Your task to perform on an android device: turn vacation reply on in the gmail app Image 0: 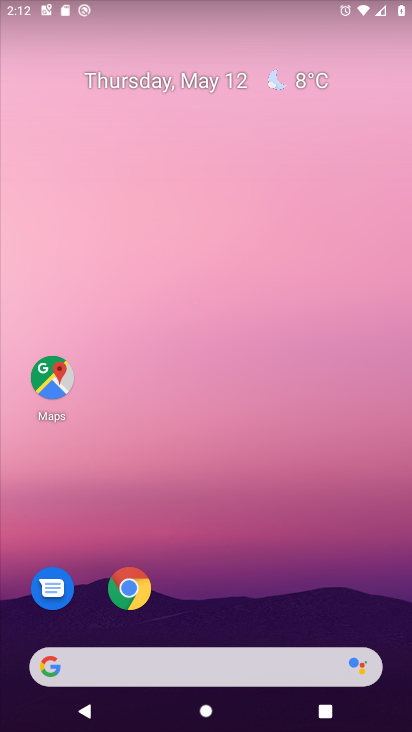
Step 0: drag from (379, 484) to (355, 143)
Your task to perform on an android device: turn vacation reply on in the gmail app Image 1: 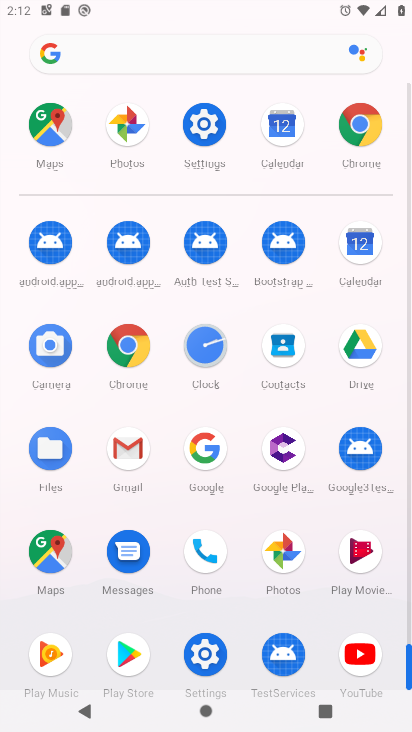
Step 1: click (123, 454)
Your task to perform on an android device: turn vacation reply on in the gmail app Image 2: 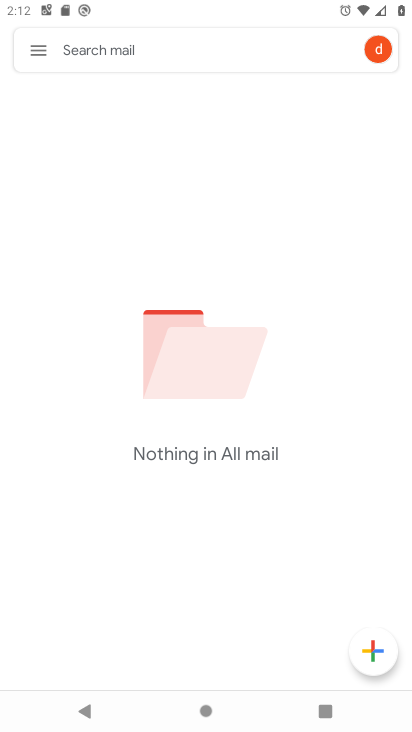
Step 2: click (32, 57)
Your task to perform on an android device: turn vacation reply on in the gmail app Image 3: 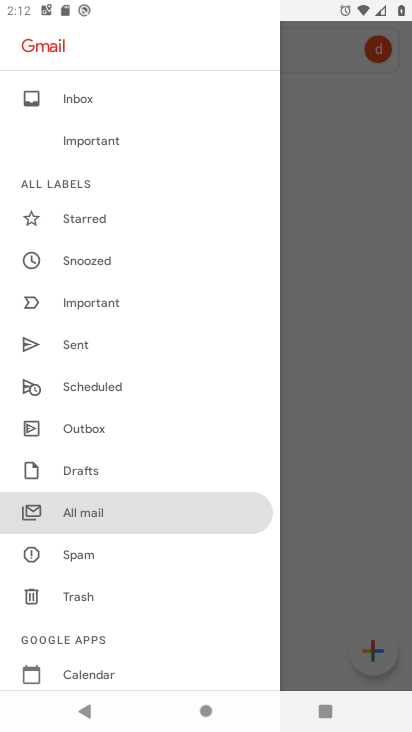
Step 3: drag from (149, 603) to (161, 234)
Your task to perform on an android device: turn vacation reply on in the gmail app Image 4: 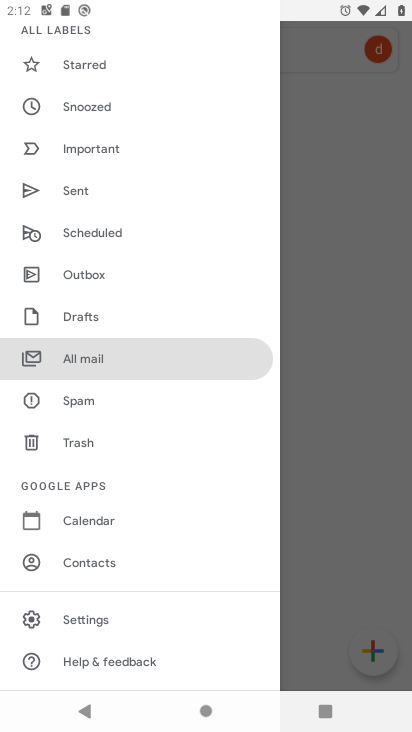
Step 4: click (102, 622)
Your task to perform on an android device: turn vacation reply on in the gmail app Image 5: 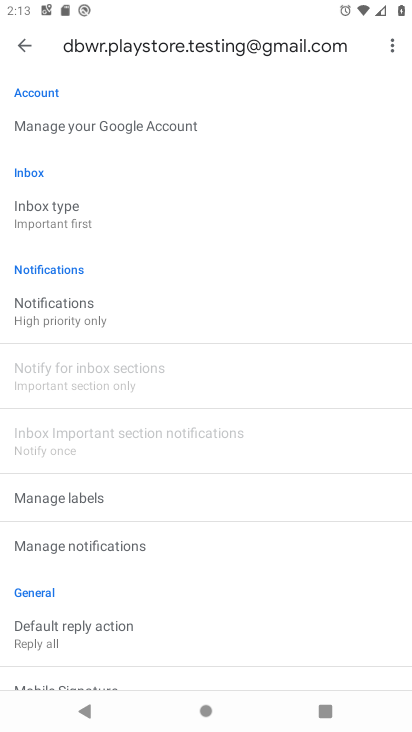
Step 5: click (139, 333)
Your task to perform on an android device: turn vacation reply on in the gmail app Image 6: 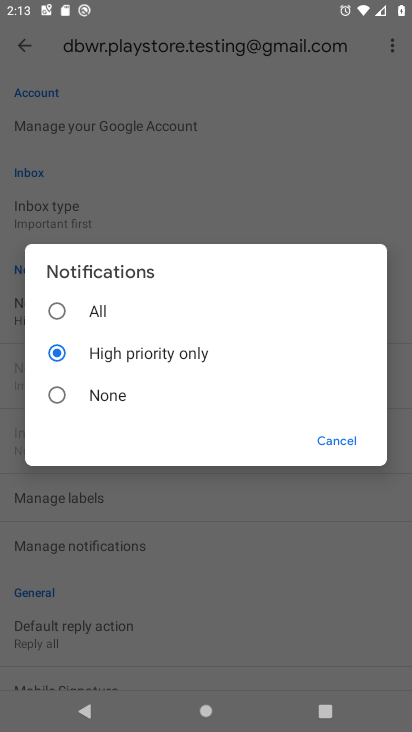
Step 6: click (334, 449)
Your task to perform on an android device: turn vacation reply on in the gmail app Image 7: 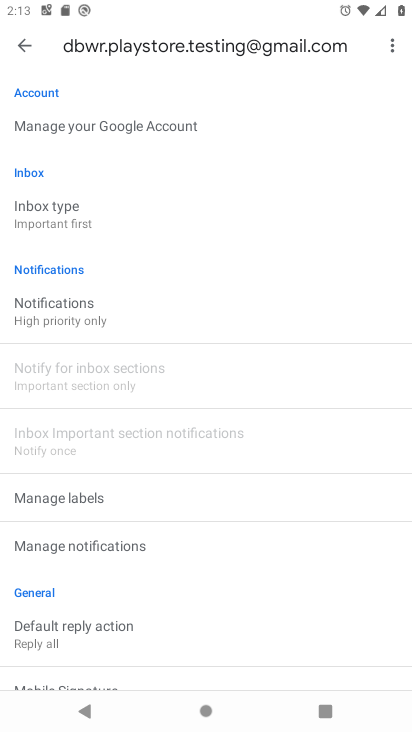
Step 7: drag from (161, 572) to (172, 240)
Your task to perform on an android device: turn vacation reply on in the gmail app Image 8: 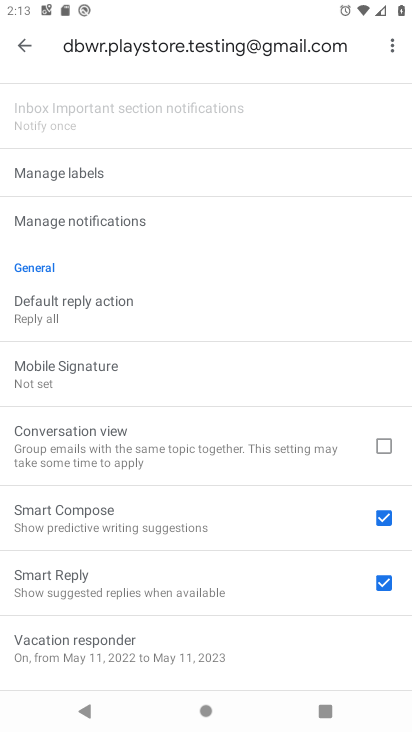
Step 8: click (134, 644)
Your task to perform on an android device: turn vacation reply on in the gmail app Image 9: 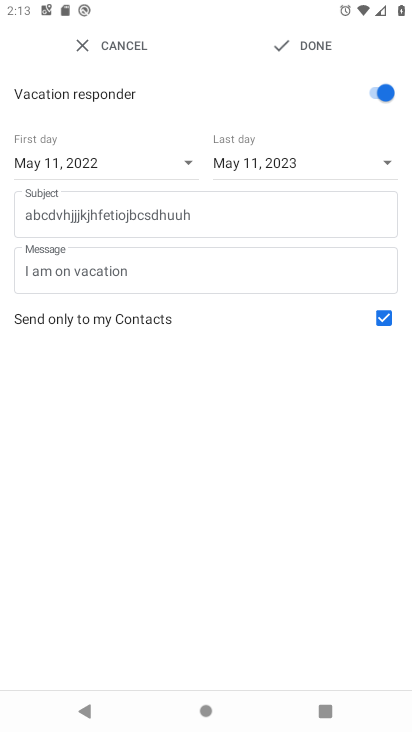
Step 9: task complete